Your task to perform on an android device: move a message to another label in the gmail app Image 0: 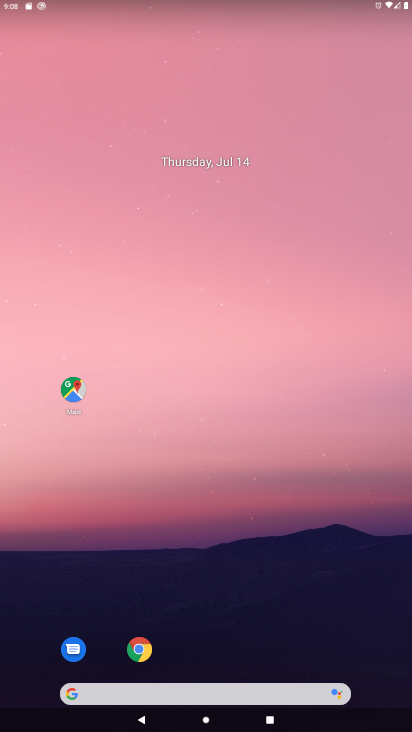
Step 0: drag from (234, 630) to (225, 2)
Your task to perform on an android device: move a message to another label in the gmail app Image 1: 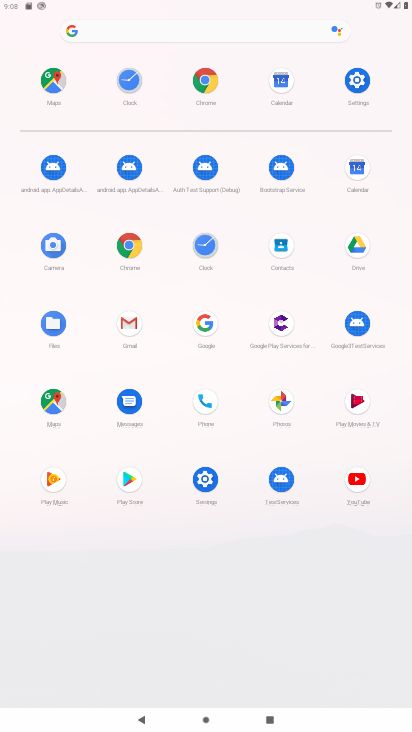
Step 1: click (136, 326)
Your task to perform on an android device: move a message to another label in the gmail app Image 2: 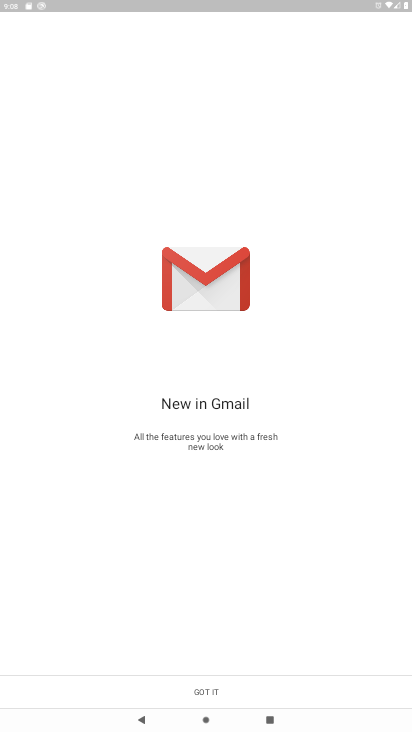
Step 2: click (211, 686)
Your task to perform on an android device: move a message to another label in the gmail app Image 3: 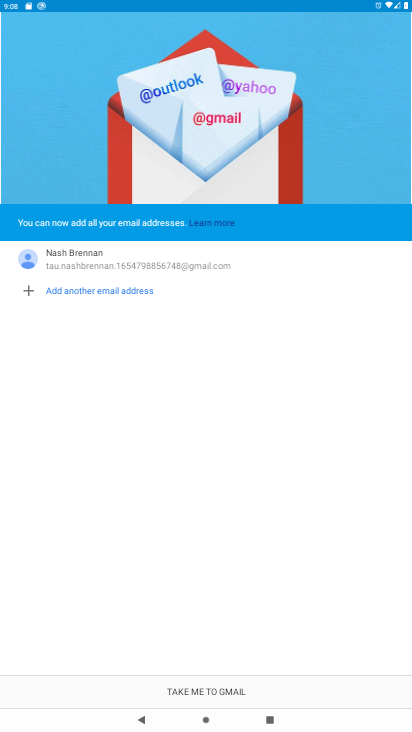
Step 3: click (217, 691)
Your task to perform on an android device: move a message to another label in the gmail app Image 4: 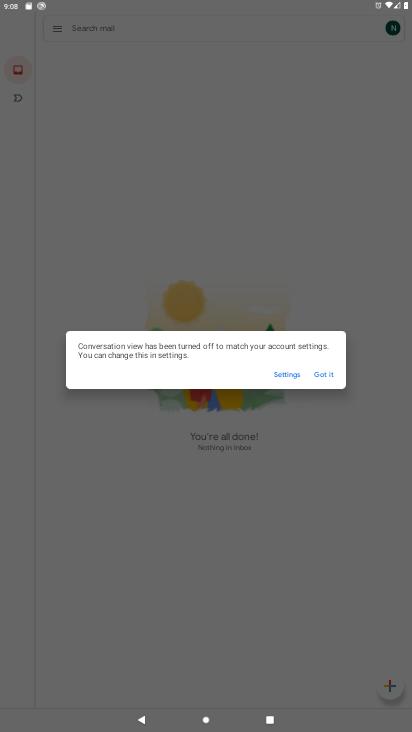
Step 4: click (328, 375)
Your task to perform on an android device: move a message to another label in the gmail app Image 5: 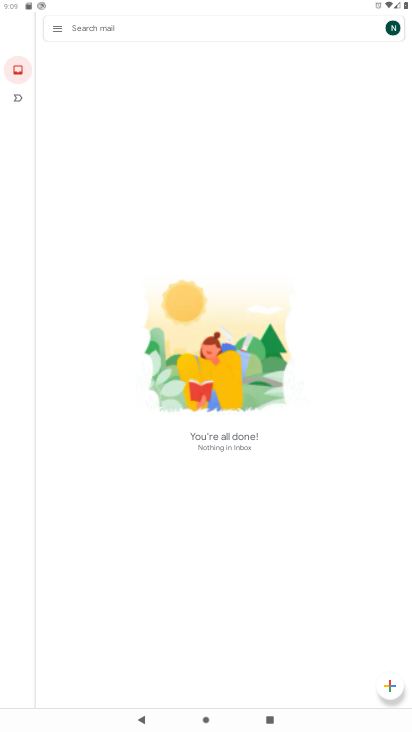
Step 5: task complete